Your task to perform on an android device: delete the emails in spam in the gmail app Image 0: 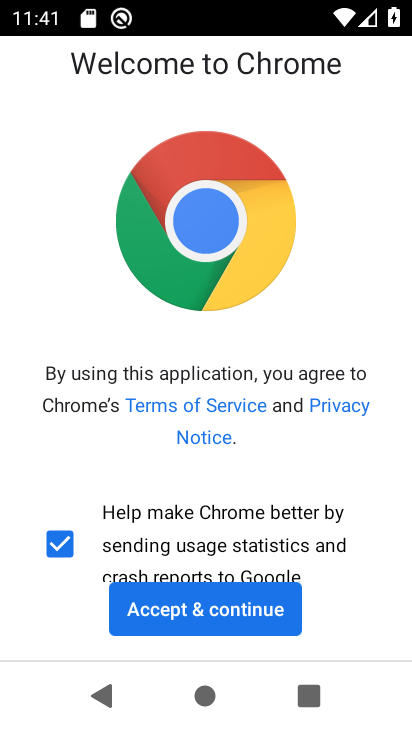
Step 0: press home button
Your task to perform on an android device: delete the emails in spam in the gmail app Image 1: 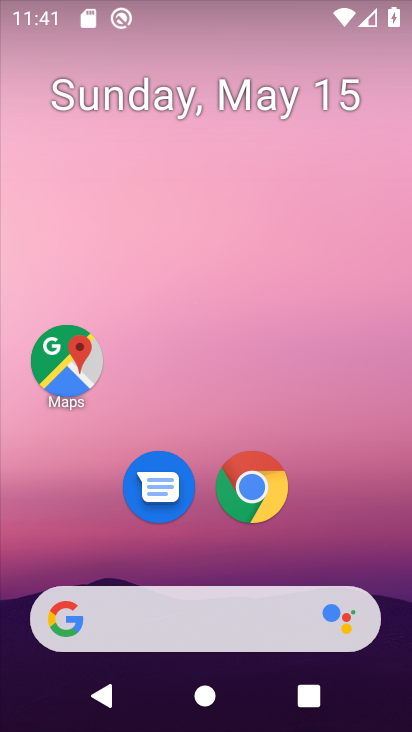
Step 1: drag from (228, 603) to (243, 263)
Your task to perform on an android device: delete the emails in spam in the gmail app Image 2: 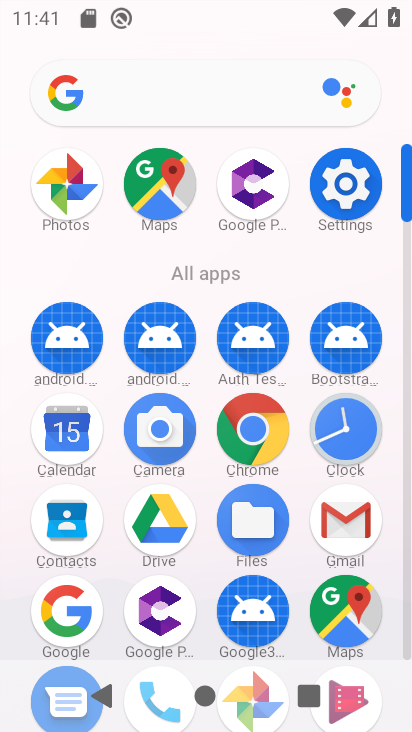
Step 2: click (359, 517)
Your task to perform on an android device: delete the emails in spam in the gmail app Image 3: 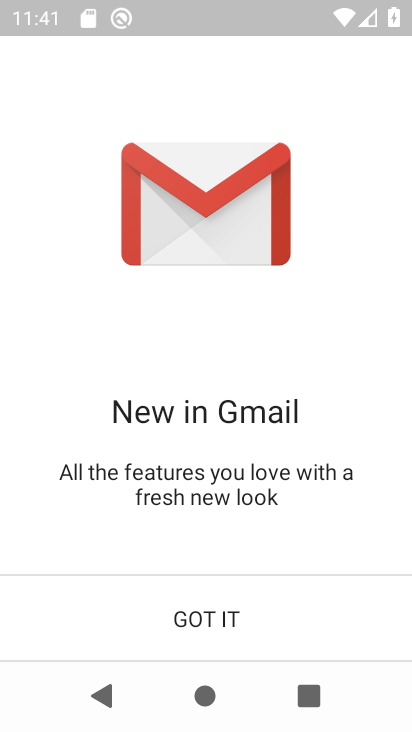
Step 3: click (228, 611)
Your task to perform on an android device: delete the emails in spam in the gmail app Image 4: 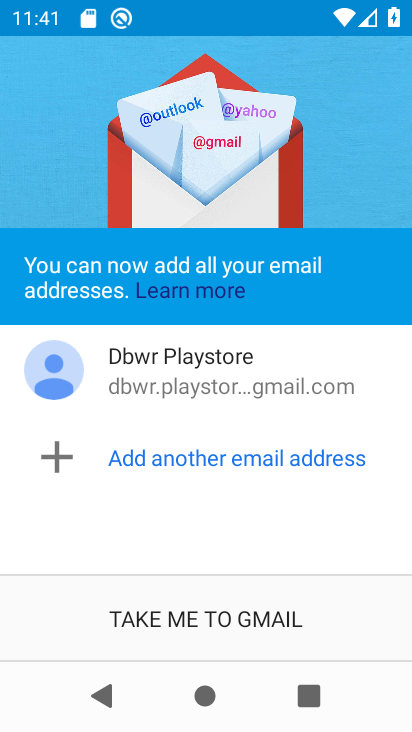
Step 4: click (228, 611)
Your task to perform on an android device: delete the emails in spam in the gmail app Image 5: 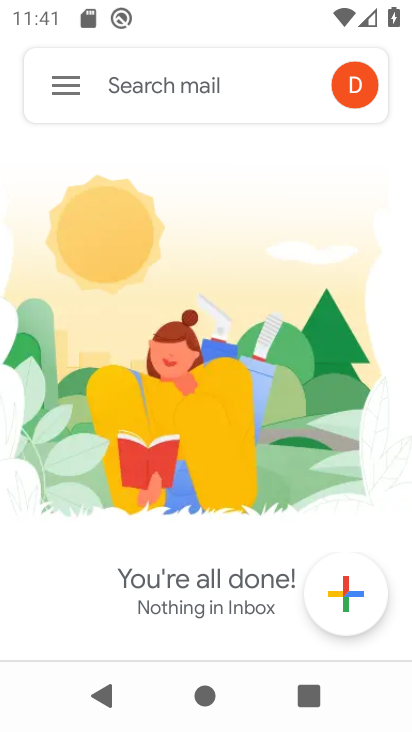
Step 5: click (59, 86)
Your task to perform on an android device: delete the emails in spam in the gmail app Image 6: 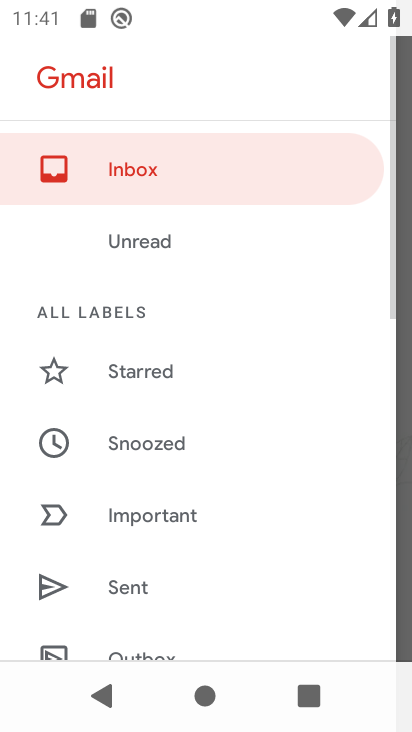
Step 6: drag from (133, 441) to (139, 234)
Your task to perform on an android device: delete the emails in spam in the gmail app Image 7: 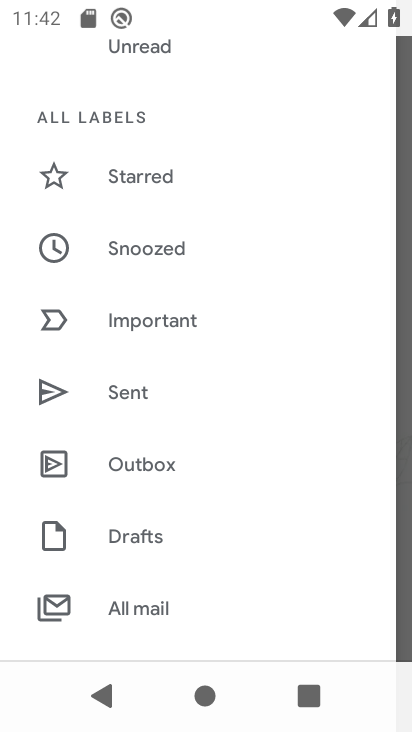
Step 7: drag from (175, 442) to (198, 272)
Your task to perform on an android device: delete the emails in spam in the gmail app Image 8: 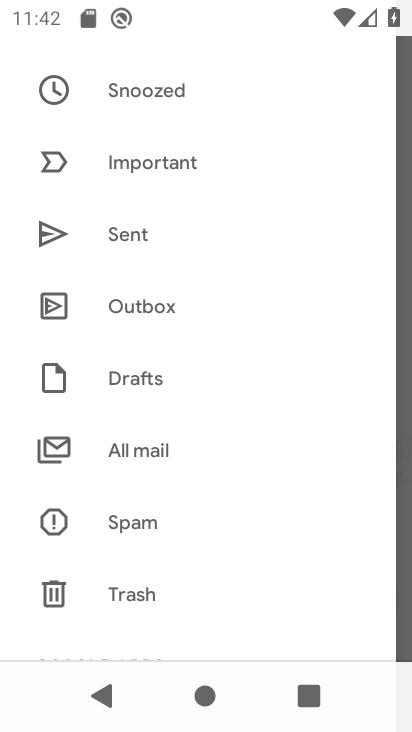
Step 8: click (130, 522)
Your task to perform on an android device: delete the emails in spam in the gmail app Image 9: 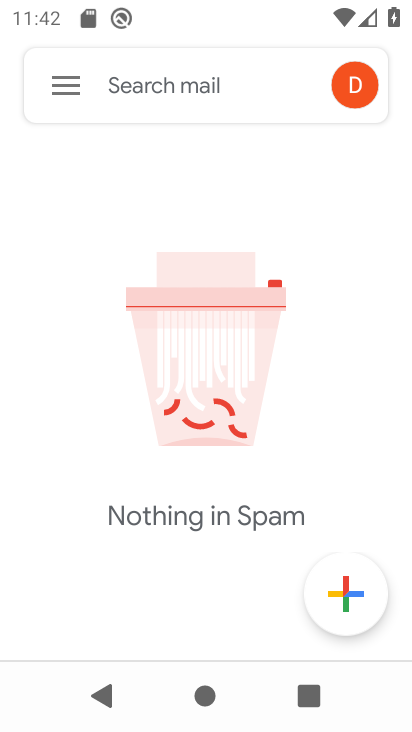
Step 9: task complete